Your task to perform on an android device: Go to Yahoo.com Image 0: 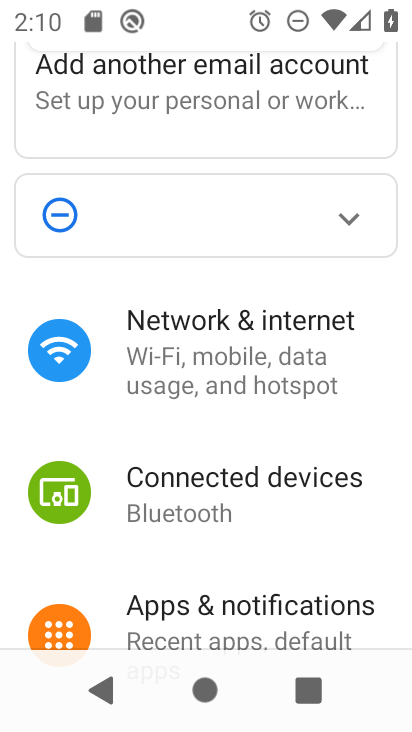
Step 0: press home button
Your task to perform on an android device: Go to Yahoo.com Image 1: 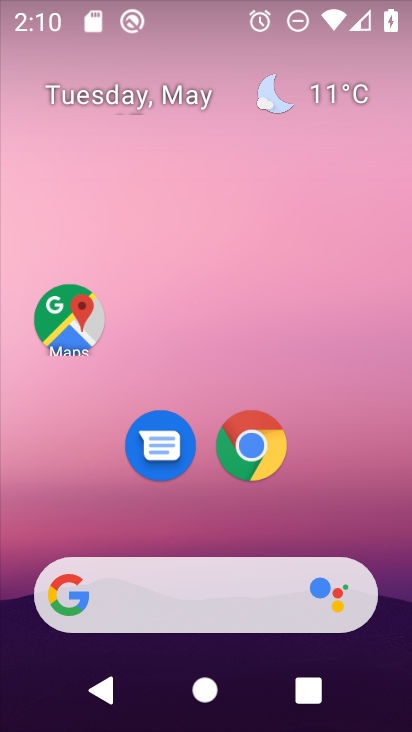
Step 1: click (264, 450)
Your task to perform on an android device: Go to Yahoo.com Image 2: 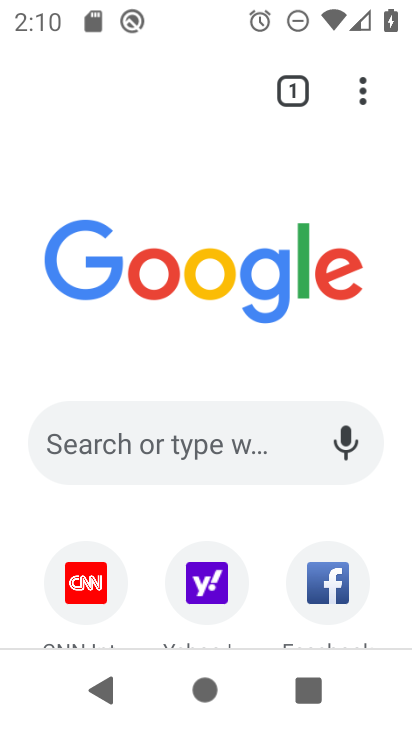
Step 2: click (227, 578)
Your task to perform on an android device: Go to Yahoo.com Image 3: 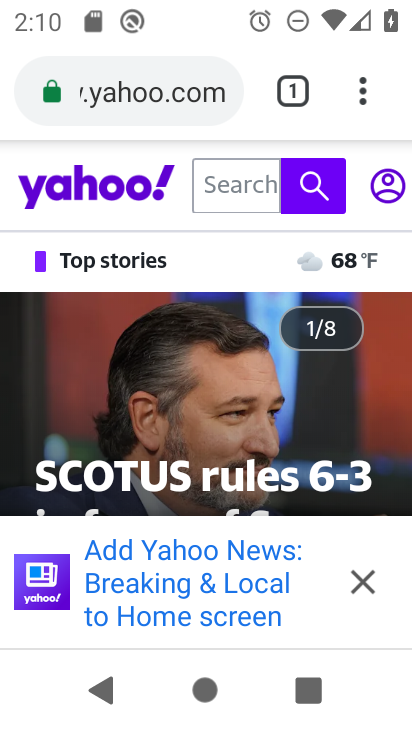
Step 3: task complete